Your task to perform on an android device: Go to privacy settings Image 0: 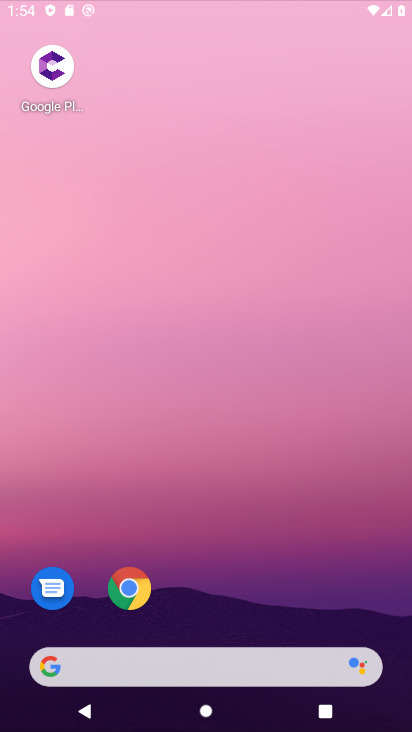
Step 0: click (184, 145)
Your task to perform on an android device: Go to privacy settings Image 1: 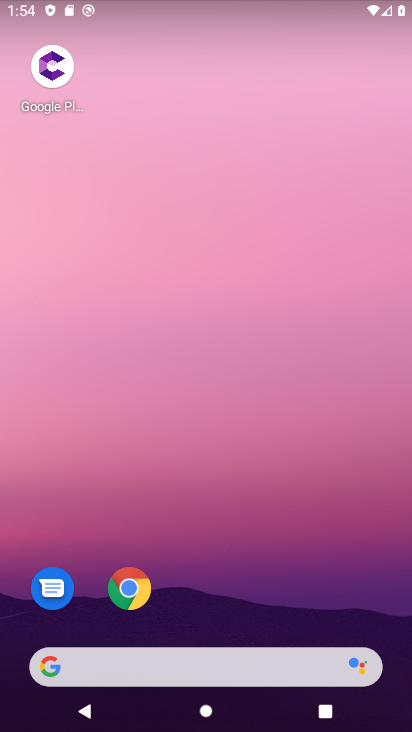
Step 1: drag from (189, 602) to (248, 75)
Your task to perform on an android device: Go to privacy settings Image 2: 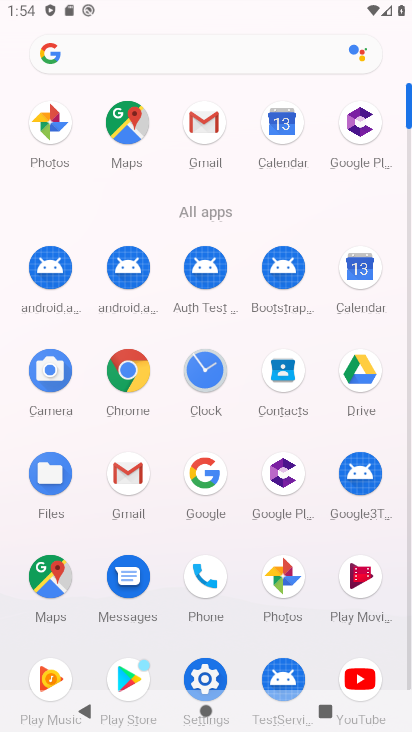
Step 2: click (207, 669)
Your task to perform on an android device: Go to privacy settings Image 3: 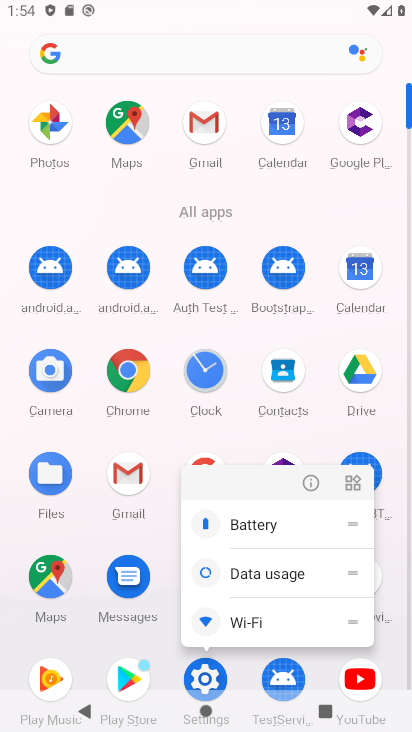
Step 3: click (300, 473)
Your task to perform on an android device: Go to privacy settings Image 4: 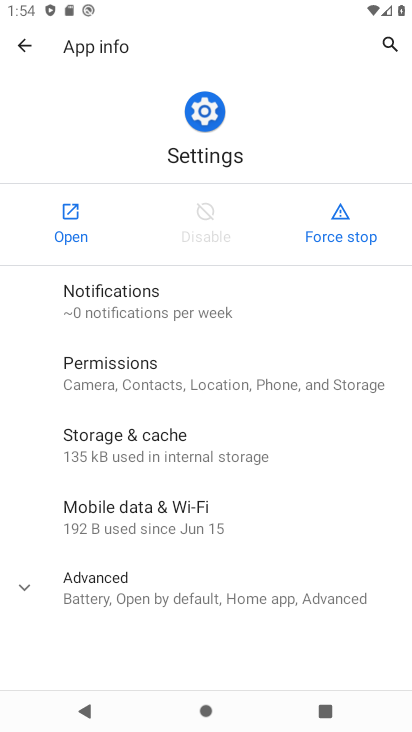
Step 4: click (71, 220)
Your task to perform on an android device: Go to privacy settings Image 5: 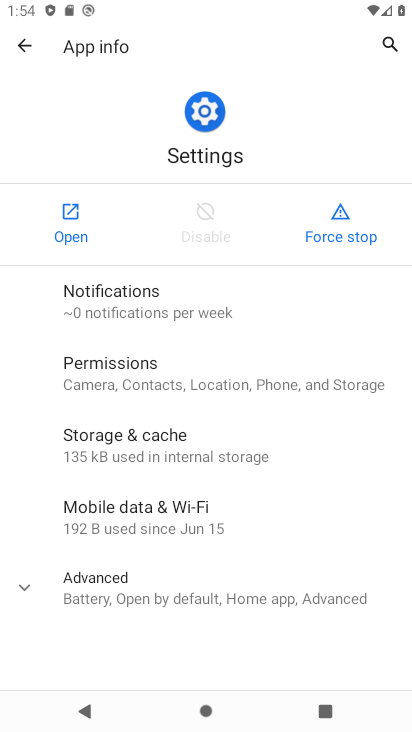
Step 5: click (71, 220)
Your task to perform on an android device: Go to privacy settings Image 6: 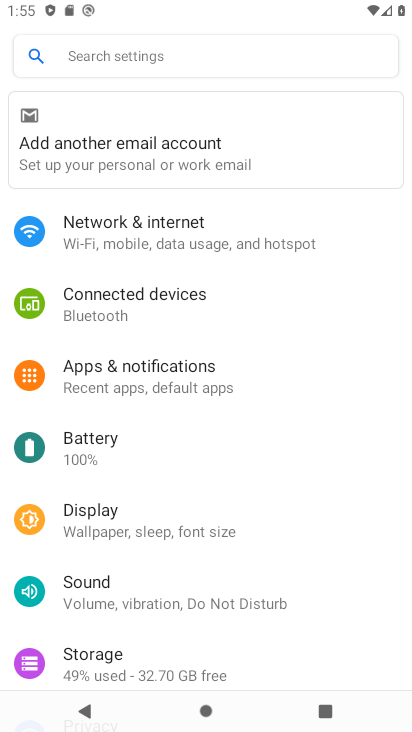
Step 6: drag from (179, 604) to (198, 261)
Your task to perform on an android device: Go to privacy settings Image 7: 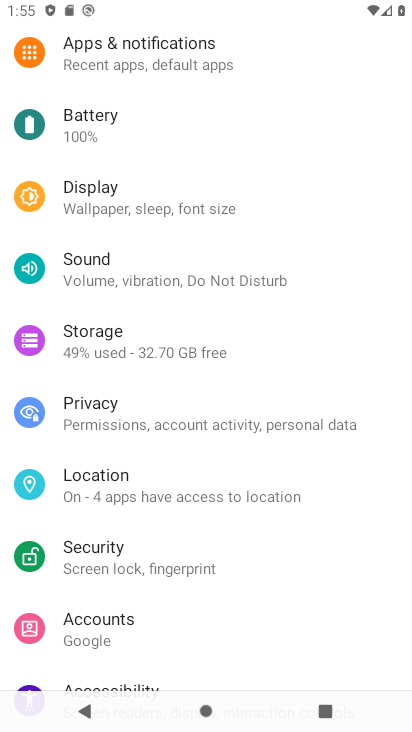
Step 7: click (102, 415)
Your task to perform on an android device: Go to privacy settings Image 8: 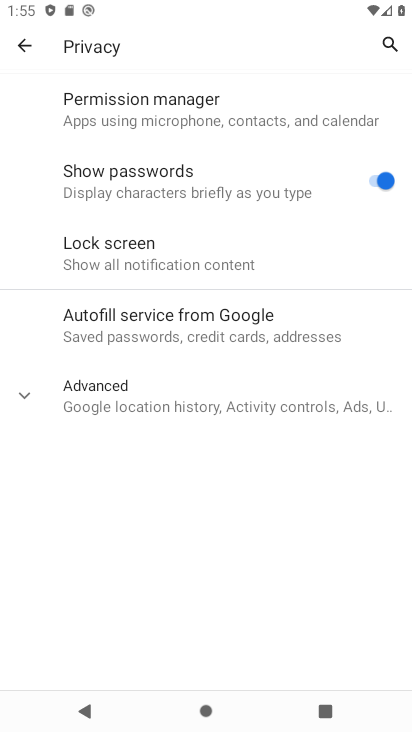
Step 8: task complete